Your task to perform on an android device: What's the weather going to be this weekend? Image 0: 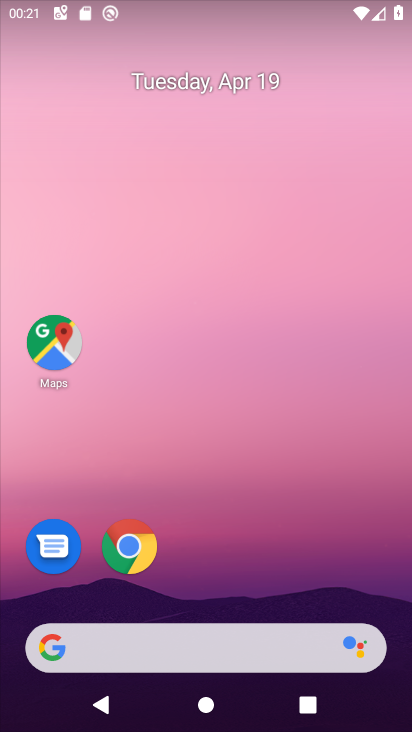
Step 0: press home button
Your task to perform on an android device: What's the weather going to be this weekend? Image 1: 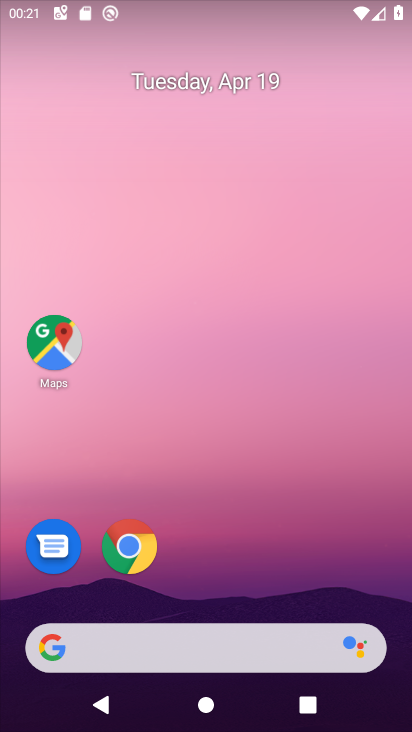
Step 1: drag from (18, 265) to (410, 306)
Your task to perform on an android device: What's the weather going to be this weekend? Image 2: 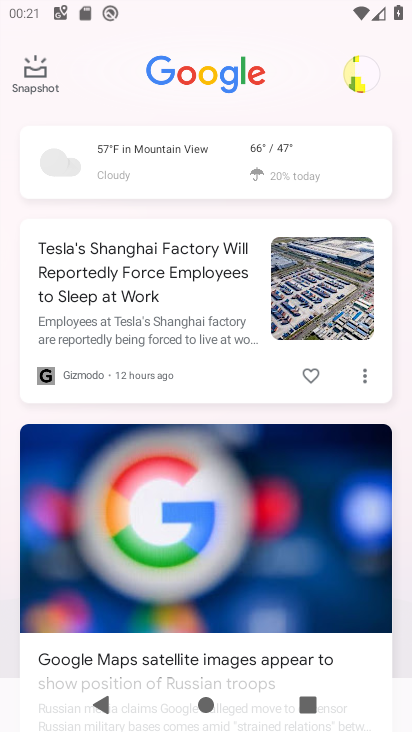
Step 2: click (195, 157)
Your task to perform on an android device: What's the weather going to be this weekend? Image 3: 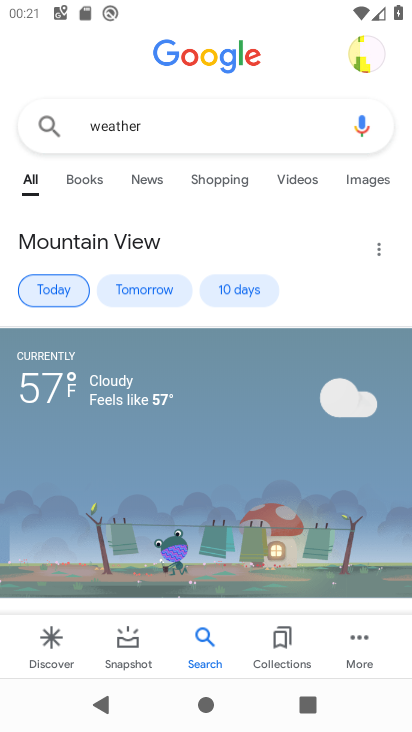
Step 3: click (231, 285)
Your task to perform on an android device: What's the weather going to be this weekend? Image 4: 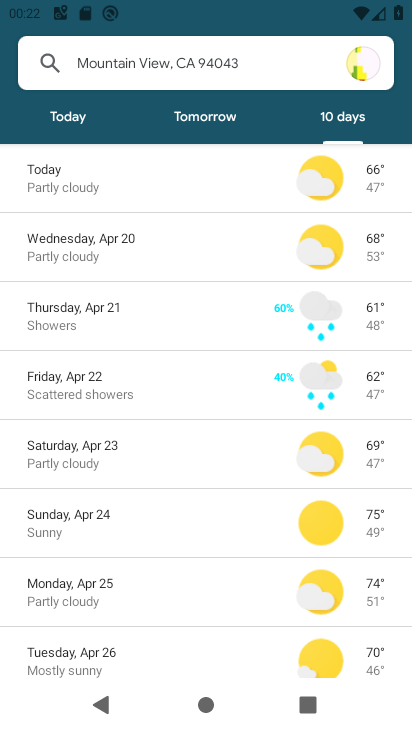
Step 4: task complete